Your task to perform on an android device: uninstall "Flipkart Online Shopping App" Image 0: 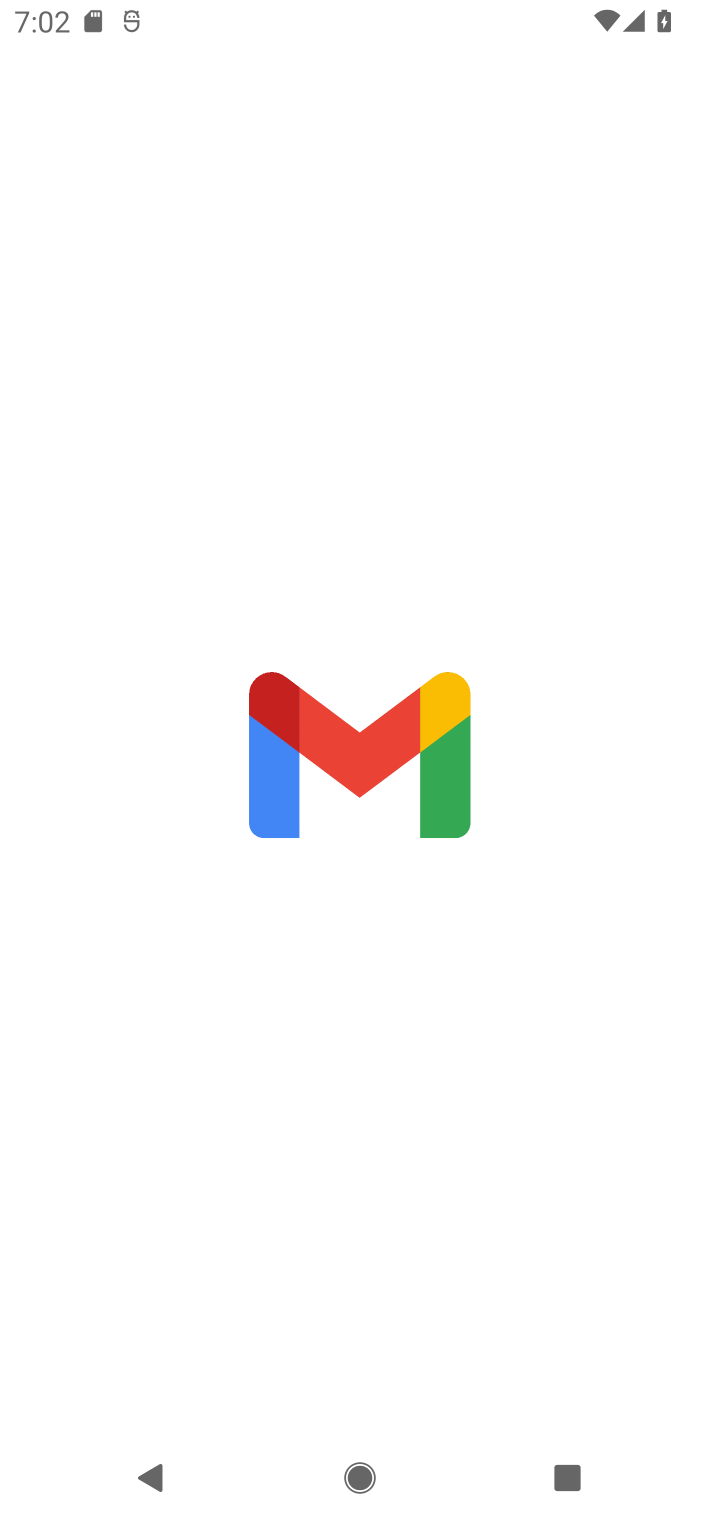
Step 0: press home button
Your task to perform on an android device: uninstall "Flipkart Online Shopping App" Image 1: 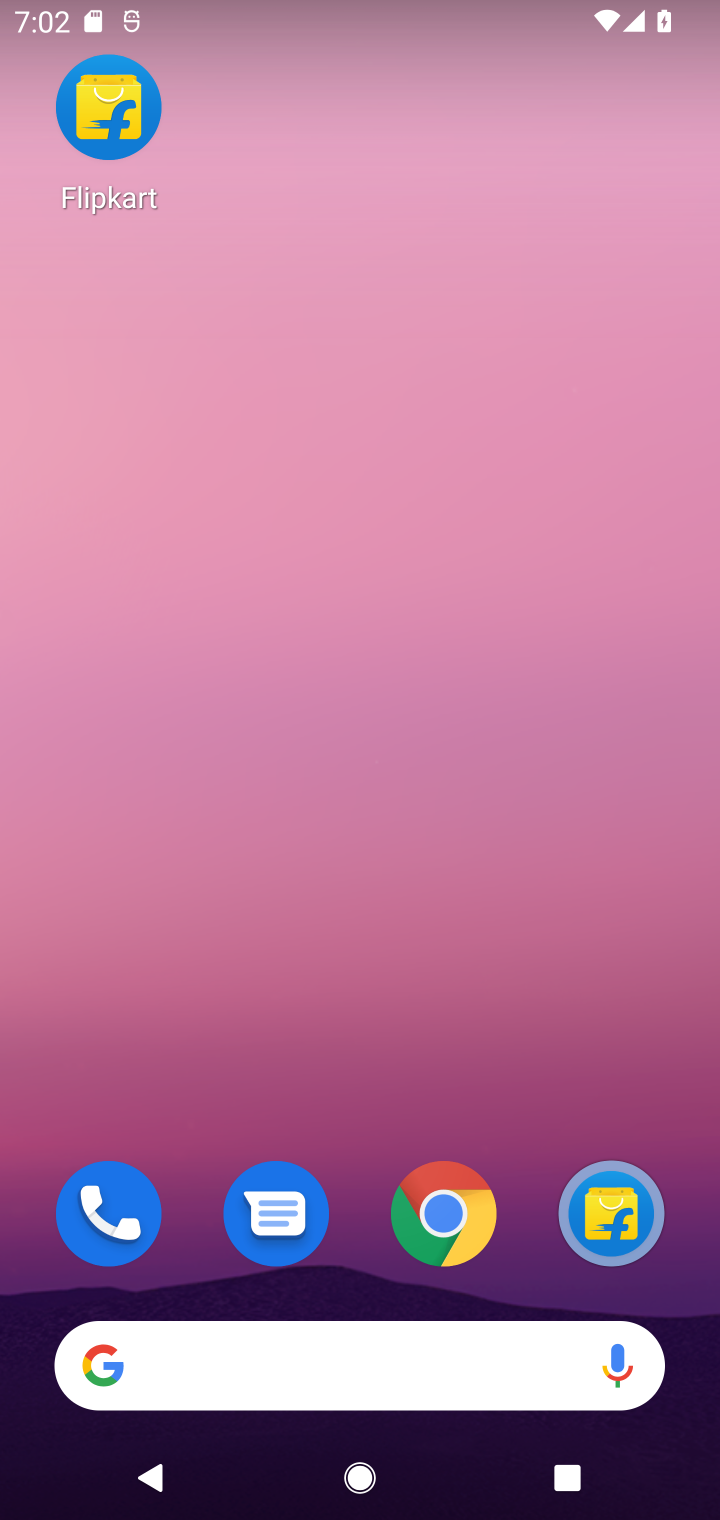
Step 1: drag from (364, 1253) to (419, 122)
Your task to perform on an android device: uninstall "Flipkart Online Shopping App" Image 2: 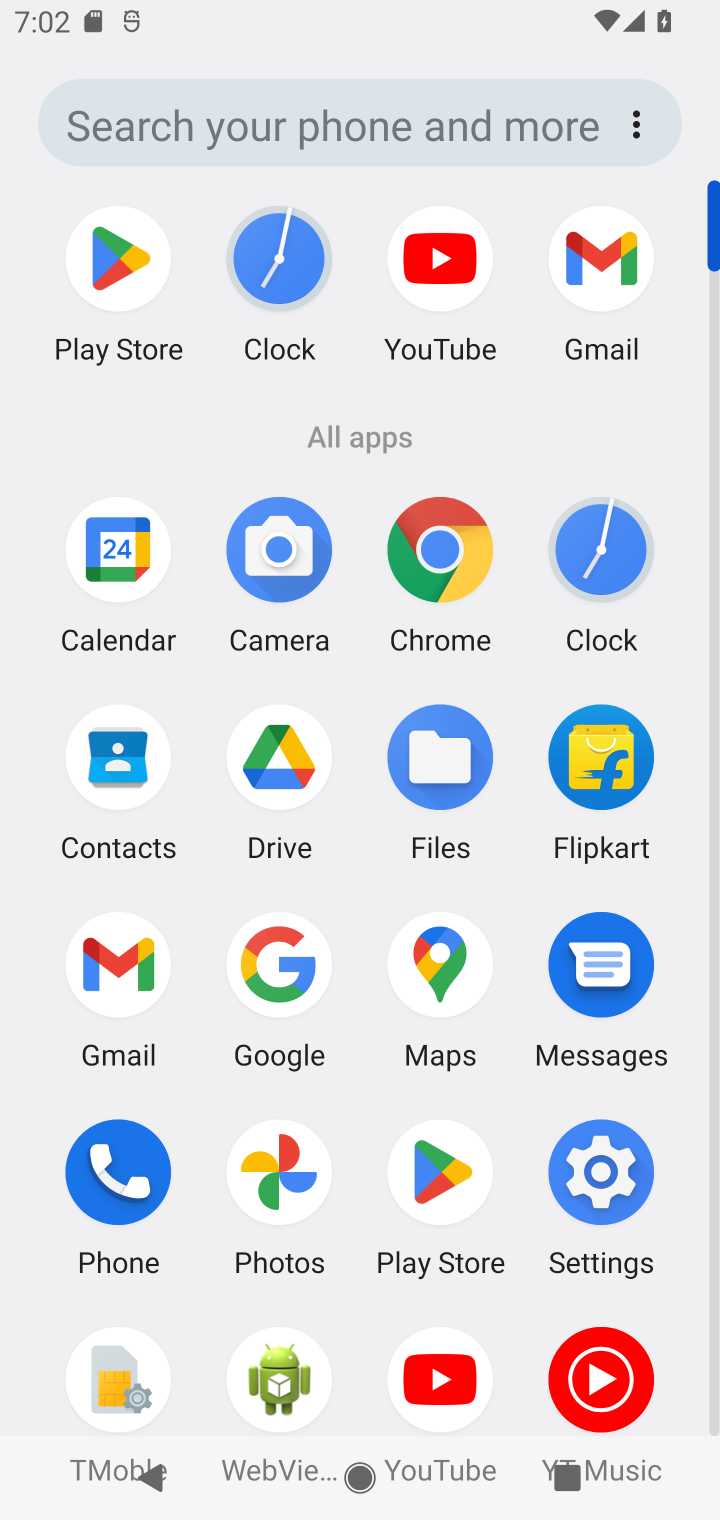
Step 2: click (115, 250)
Your task to perform on an android device: uninstall "Flipkart Online Shopping App" Image 3: 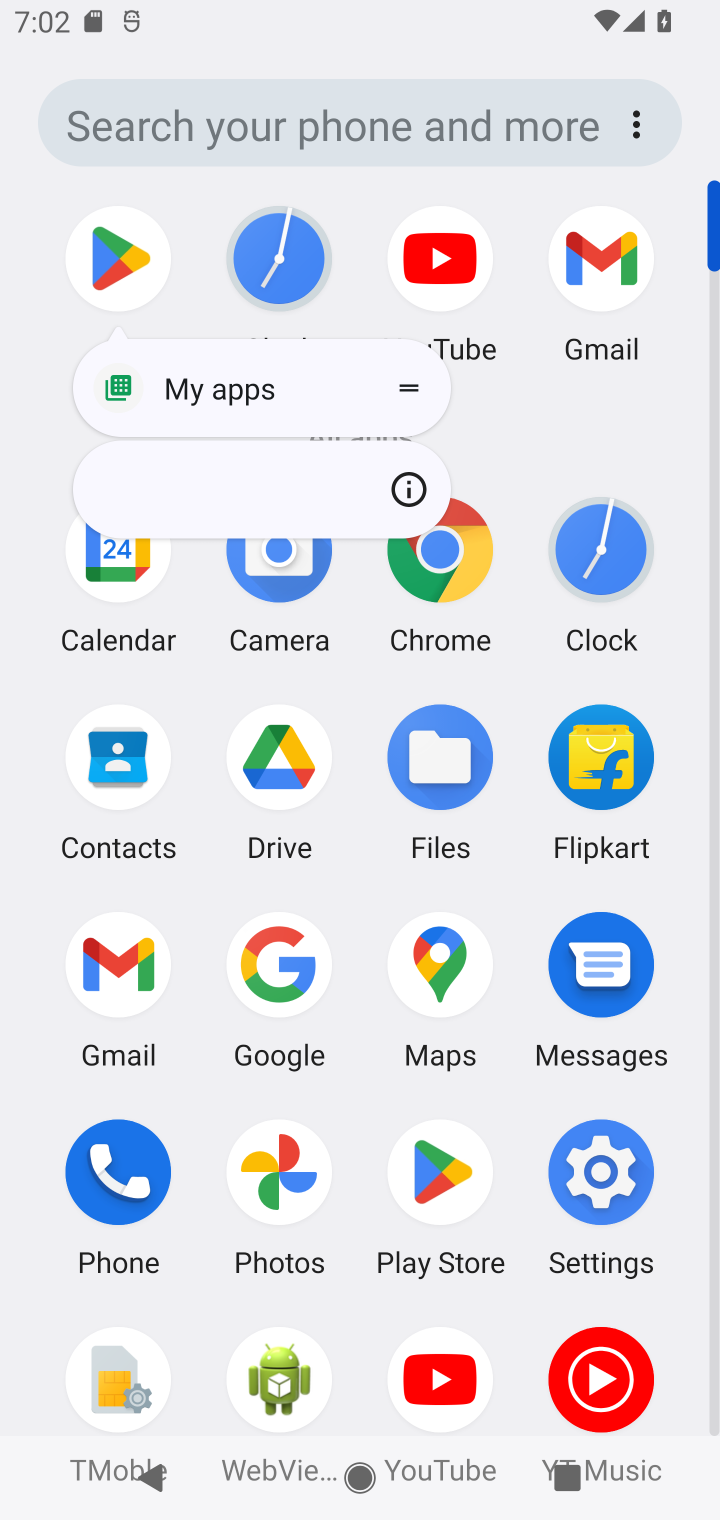
Step 3: click (112, 247)
Your task to perform on an android device: uninstall "Flipkart Online Shopping App" Image 4: 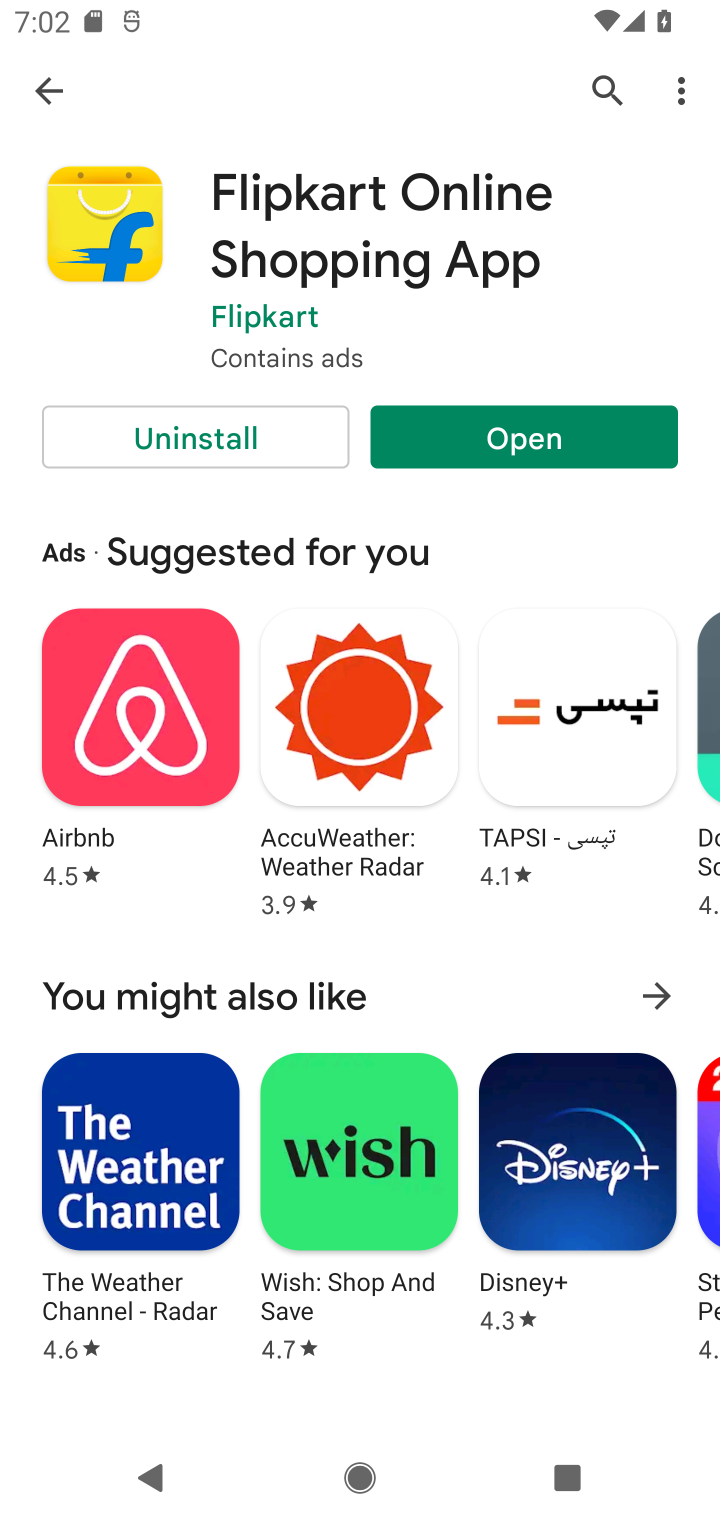
Step 4: click (202, 432)
Your task to perform on an android device: uninstall "Flipkart Online Shopping App" Image 5: 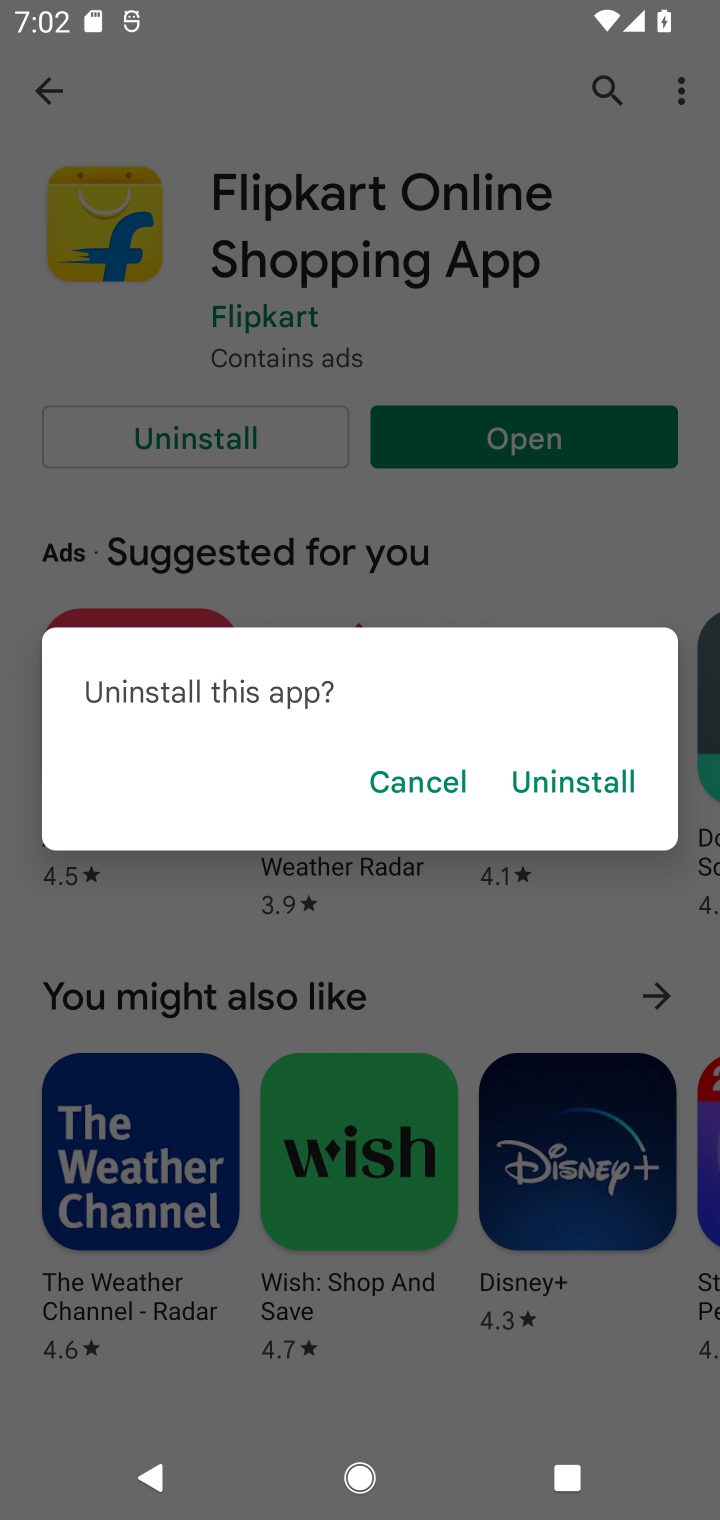
Step 5: click (579, 777)
Your task to perform on an android device: uninstall "Flipkart Online Shopping App" Image 6: 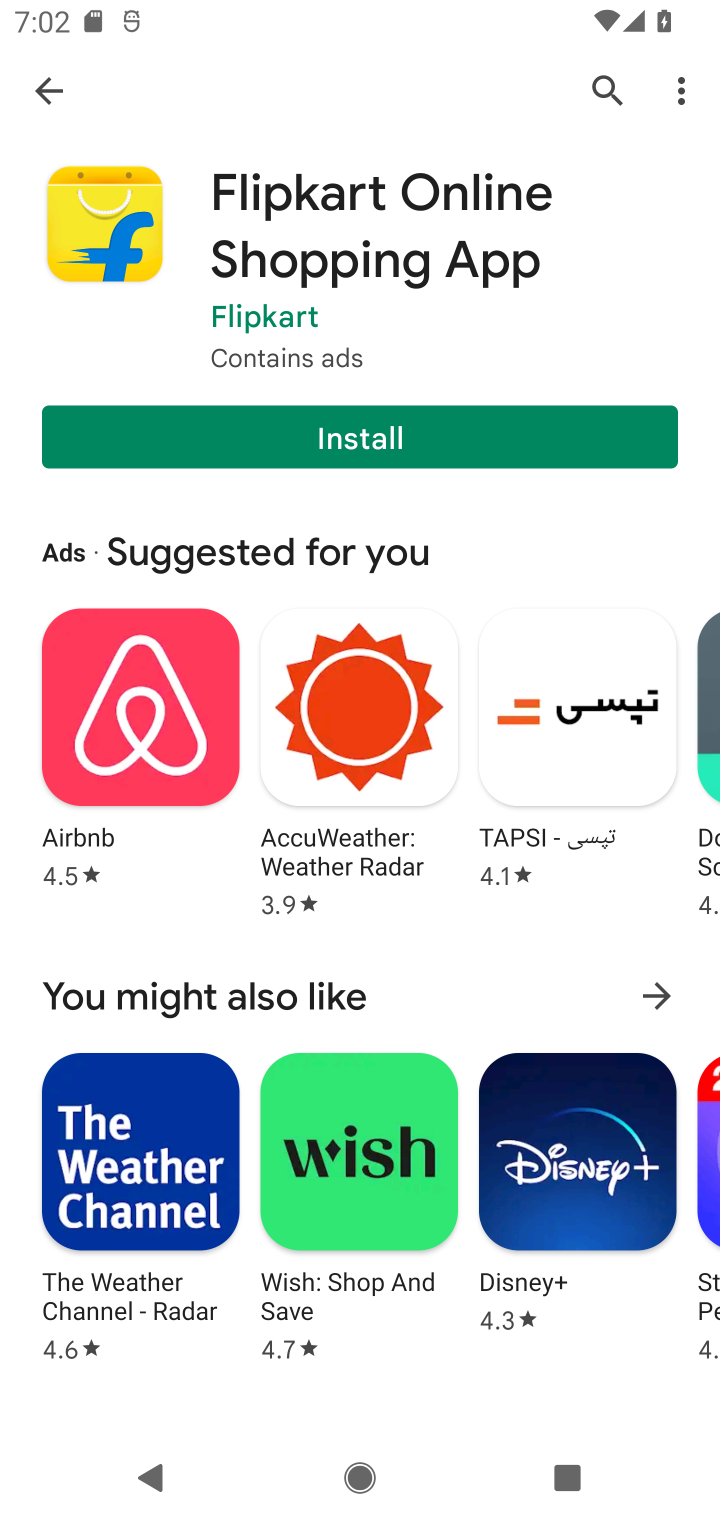
Step 6: task complete